Your task to perform on an android device: create a new album in the google photos Image 0: 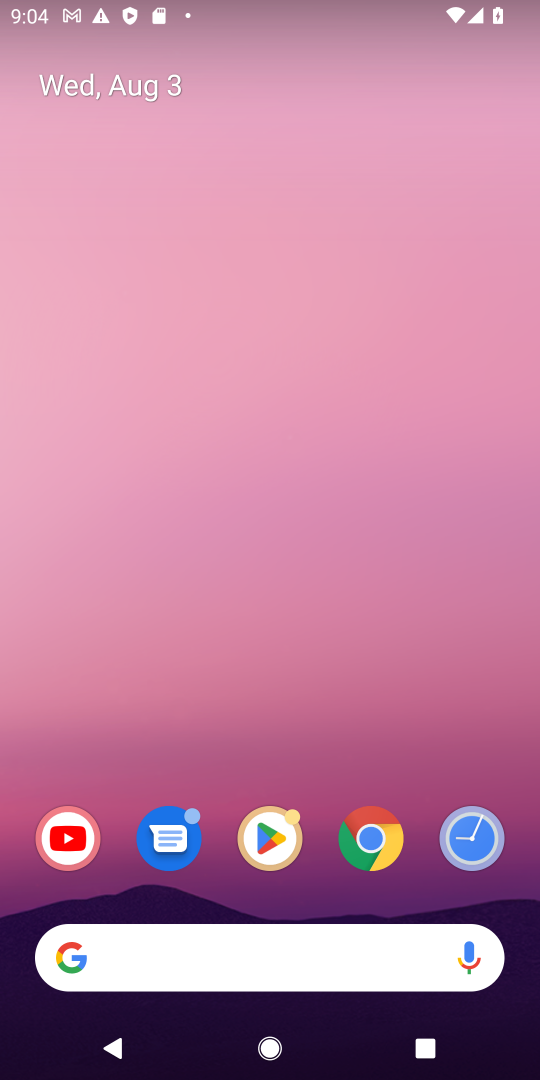
Step 0: drag from (238, 910) to (257, 104)
Your task to perform on an android device: create a new album in the google photos Image 1: 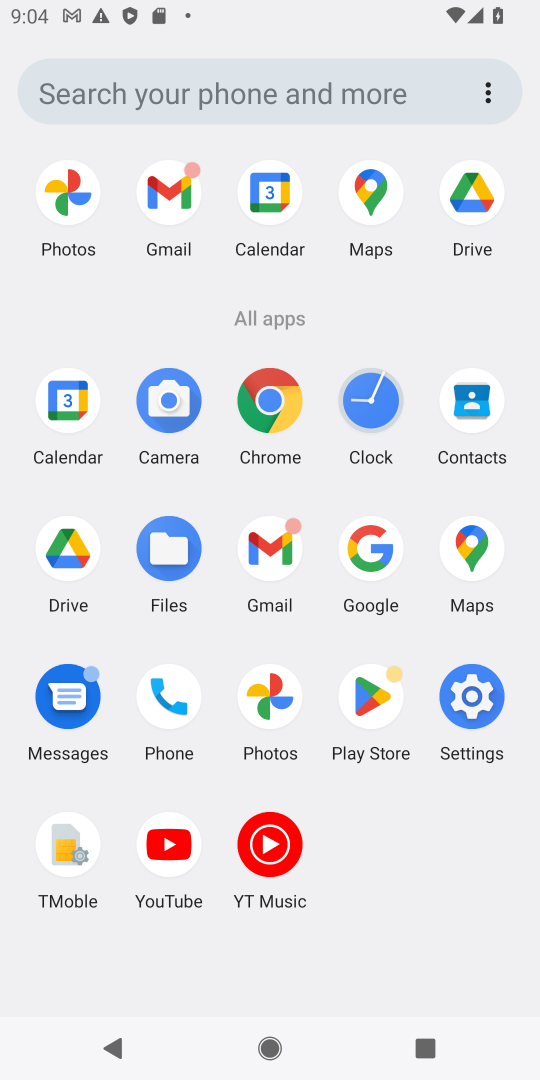
Step 1: click (264, 711)
Your task to perform on an android device: create a new album in the google photos Image 2: 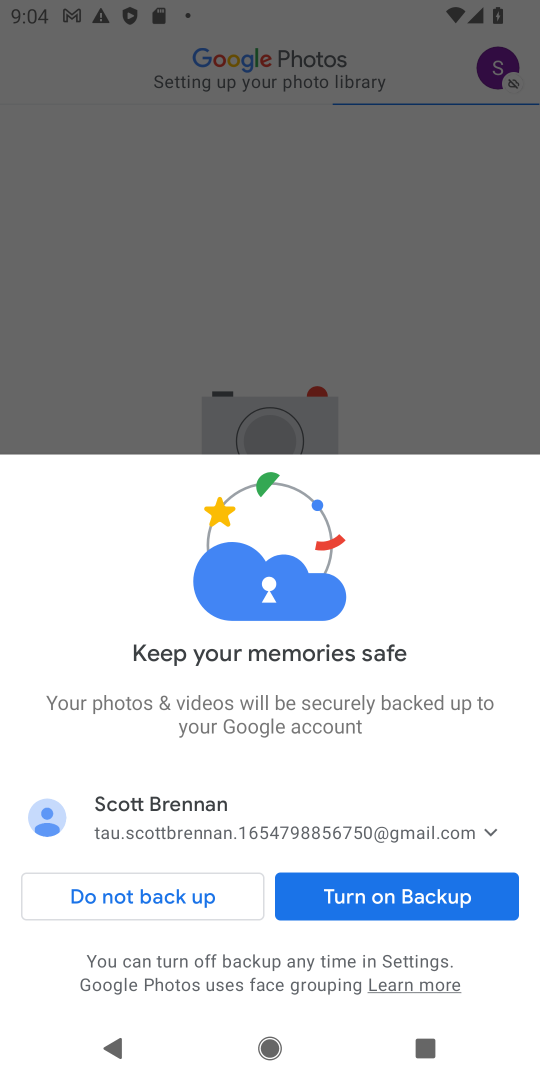
Step 2: click (216, 900)
Your task to perform on an android device: create a new album in the google photos Image 3: 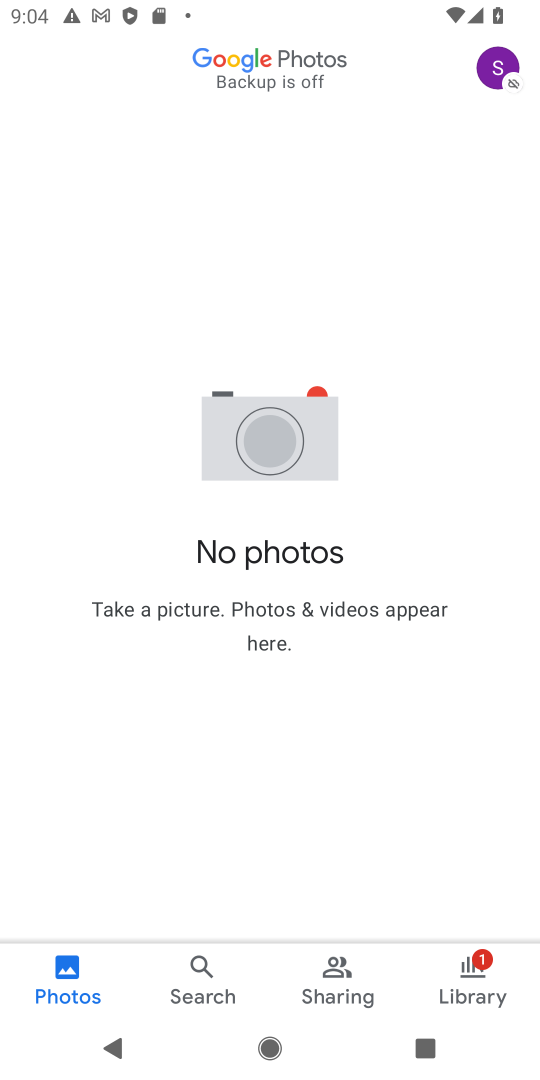
Step 3: click (471, 966)
Your task to perform on an android device: create a new album in the google photos Image 4: 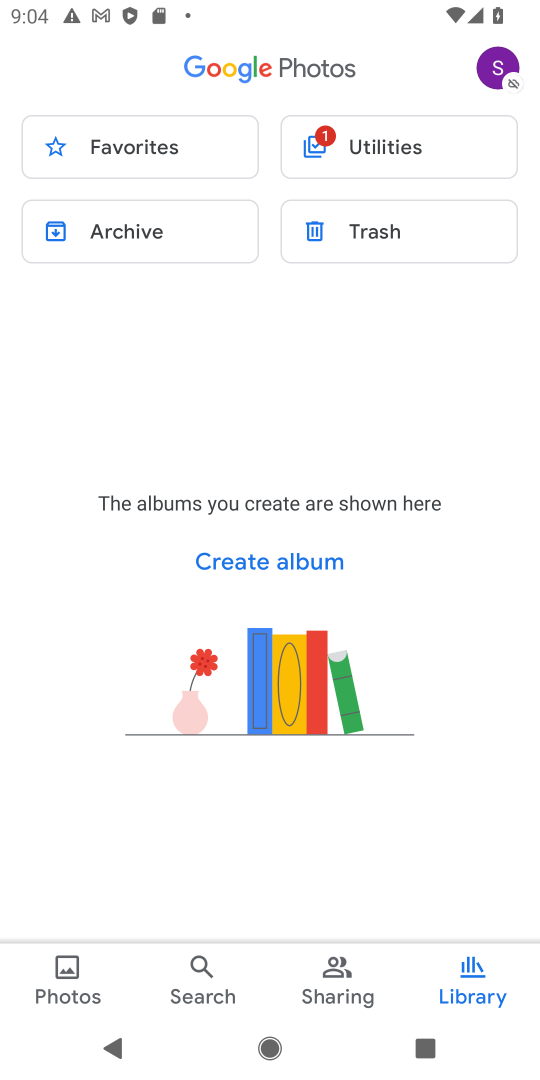
Step 4: click (262, 556)
Your task to perform on an android device: create a new album in the google photos Image 5: 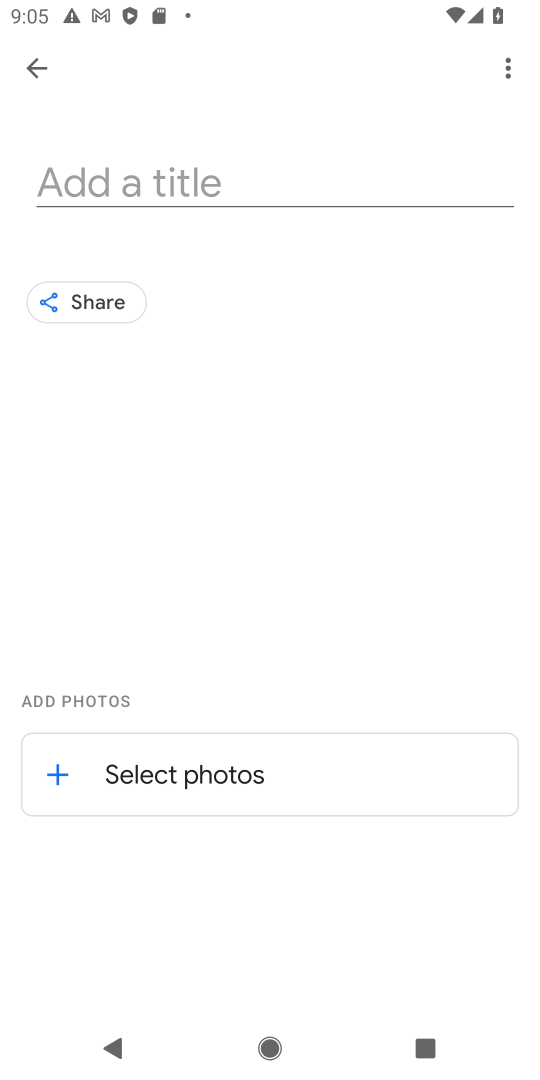
Step 5: click (64, 772)
Your task to perform on an android device: create a new album in the google photos Image 6: 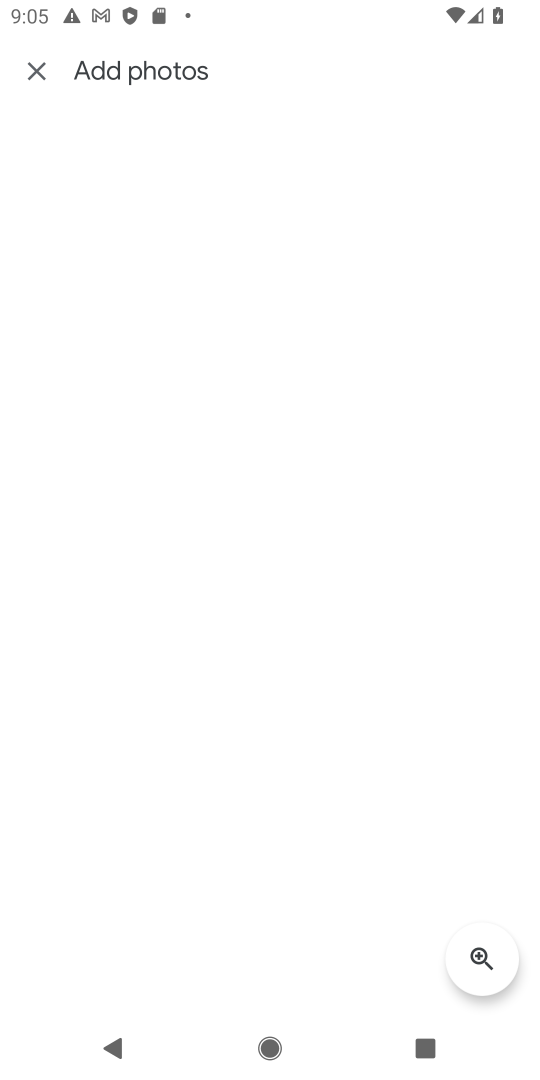
Step 6: task complete